Your task to perform on an android device: turn on the 24-hour format for clock Image 0: 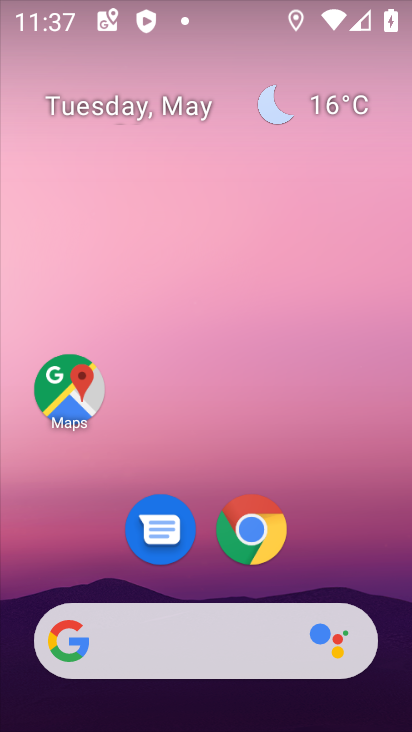
Step 0: drag from (76, 502) to (169, 200)
Your task to perform on an android device: turn on the 24-hour format for clock Image 1: 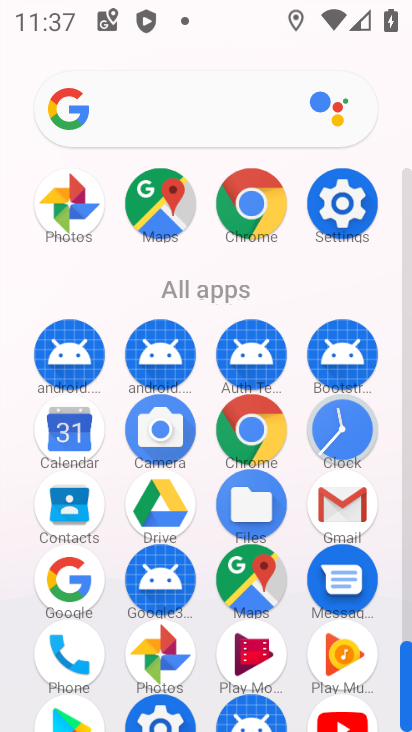
Step 1: click (354, 443)
Your task to perform on an android device: turn on the 24-hour format for clock Image 2: 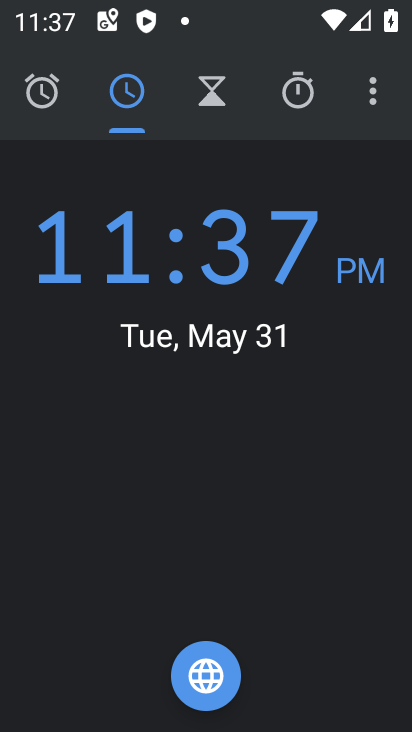
Step 2: click (377, 87)
Your task to perform on an android device: turn on the 24-hour format for clock Image 3: 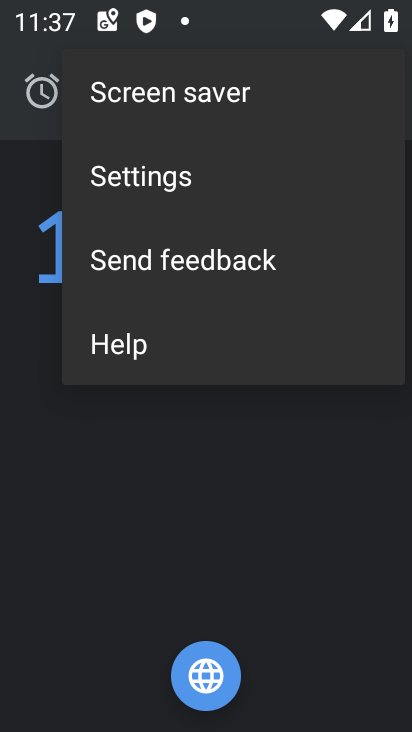
Step 3: click (249, 176)
Your task to perform on an android device: turn on the 24-hour format for clock Image 4: 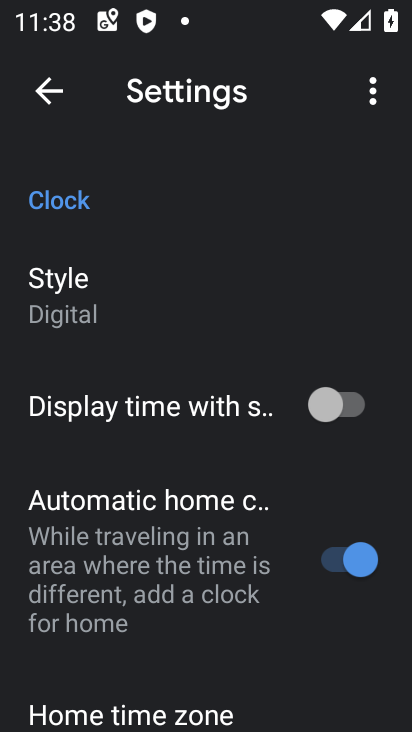
Step 4: drag from (168, 576) to (271, 119)
Your task to perform on an android device: turn on the 24-hour format for clock Image 5: 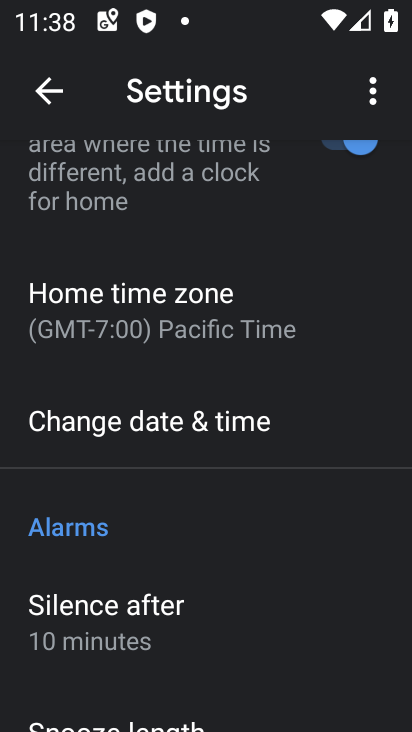
Step 5: click (203, 399)
Your task to perform on an android device: turn on the 24-hour format for clock Image 6: 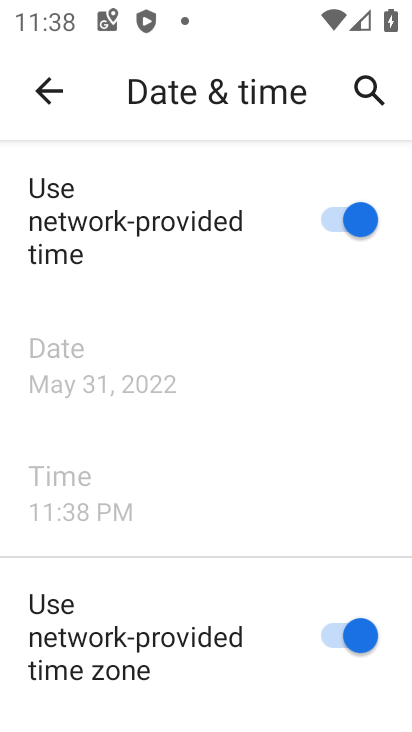
Step 6: drag from (222, 663) to (350, 152)
Your task to perform on an android device: turn on the 24-hour format for clock Image 7: 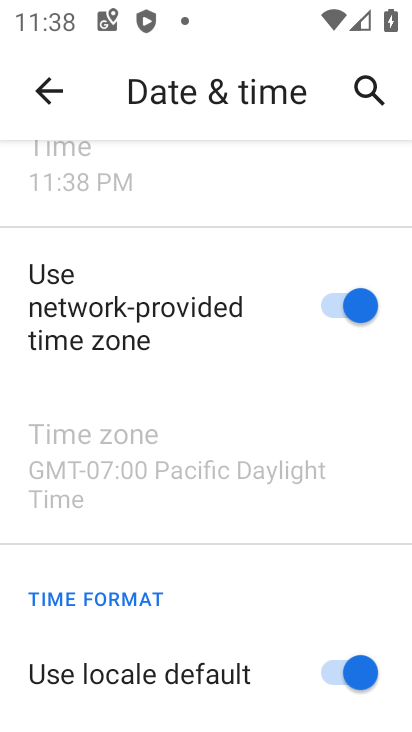
Step 7: drag from (163, 654) to (280, 163)
Your task to perform on an android device: turn on the 24-hour format for clock Image 8: 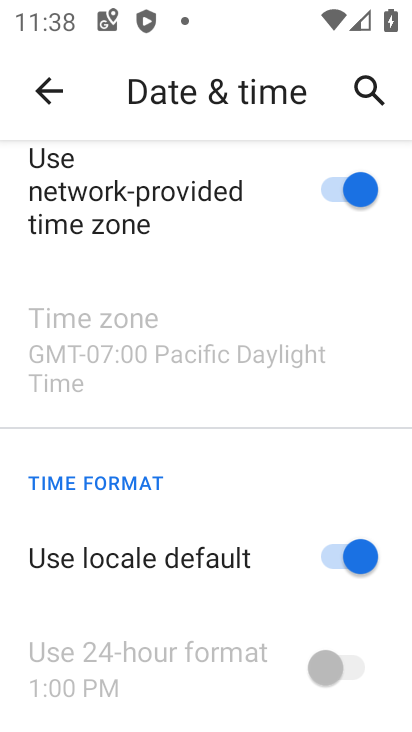
Step 8: click (321, 555)
Your task to perform on an android device: turn on the 24-hour format for clock Image 9: 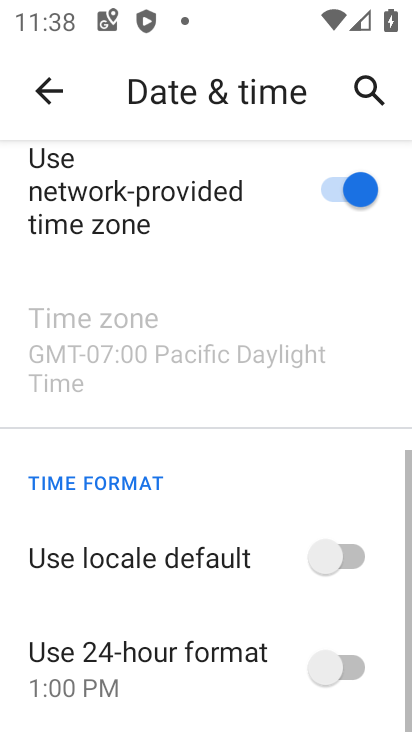
Step 9: click (366, 668)
Your task to perform on an android device: turn on the 24-hour format for clock Image 10: 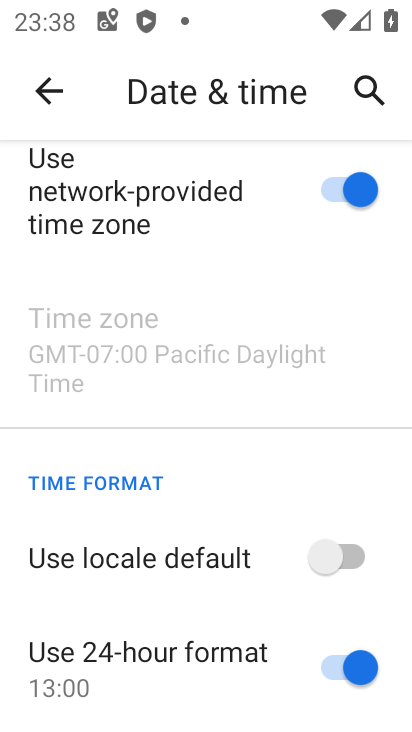
Step 10: task complete